Your task to perform on an android device: toggle javascript in the chrome app Image 0: 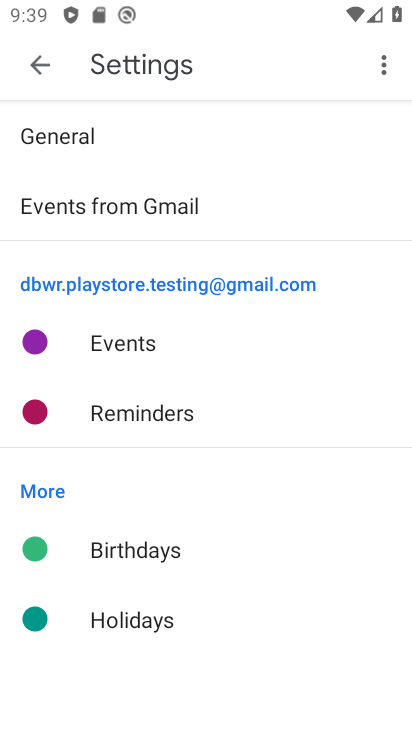
Step 0: press home button
Your task to perform on an android device: toggle javascript in the chrome app Image 1: 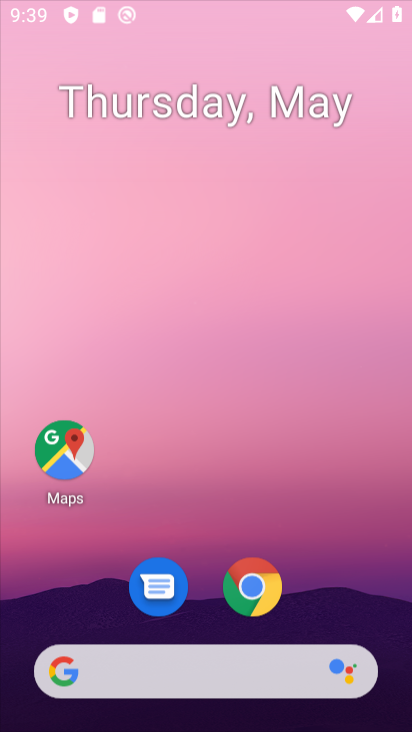
Step 1: drag from (389, 673) to (344, 112)
Your task to perform on an android device: toggle javascript in the chrome app Image 2: 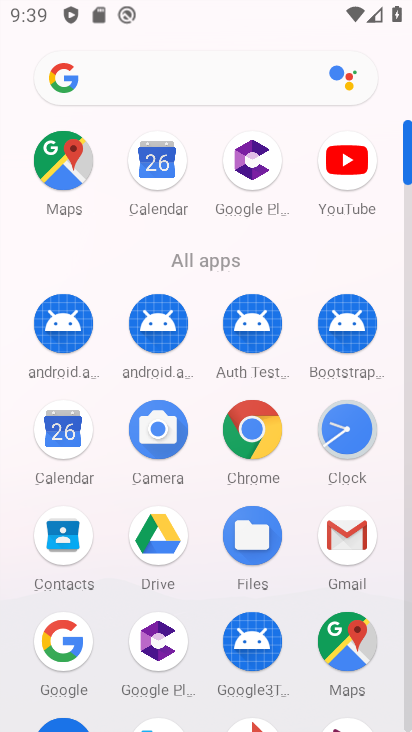
Step 2: click (244, 431)
Your task to perform on an android device: toggle javascript in the chrome app Image 3: 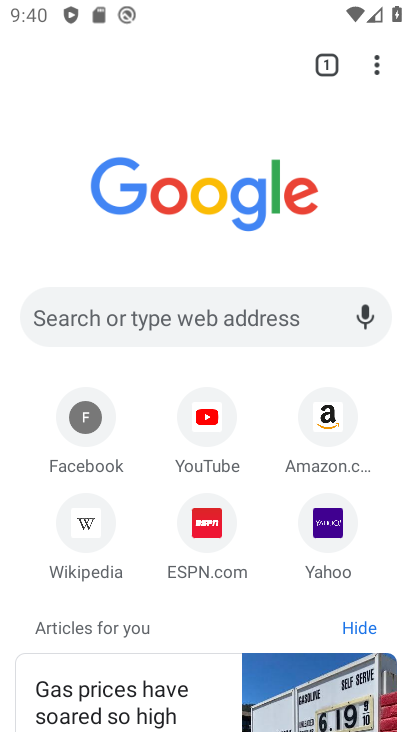
Step 3: click (384, 66)
Your task to perform on an android device: toggle javascript in the chrome app Image 4: 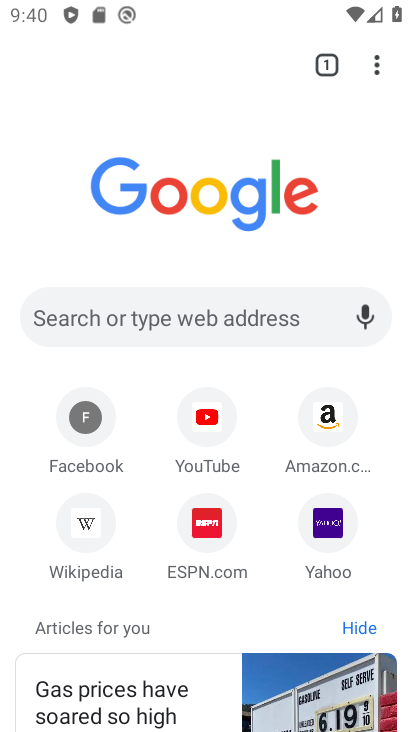
Step 4: click (368, 57)
Your task to perform on an android device: toggle javascript in the chrome app Image 5: 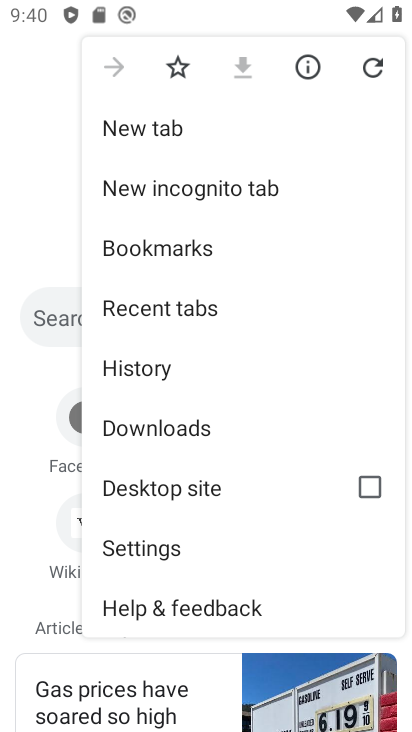
Step 5: click (193, 557)
Your task to perform on an android device: toggle javascript in the chrome app Image 6: 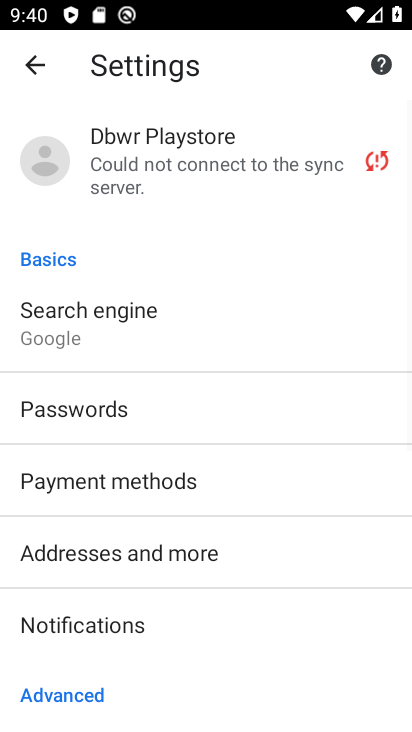
Step 6: drag from (121, 687) to (152, 194)
Your task to perform on an android device: toggle javascript in the chrome app Image 7: 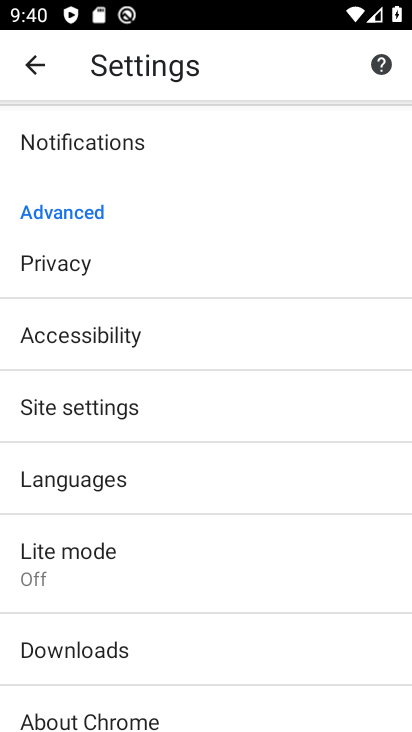
Step 7: click (132, 415)
Your task to perform on an android device: toggle javascript in the chrome app Image 8: 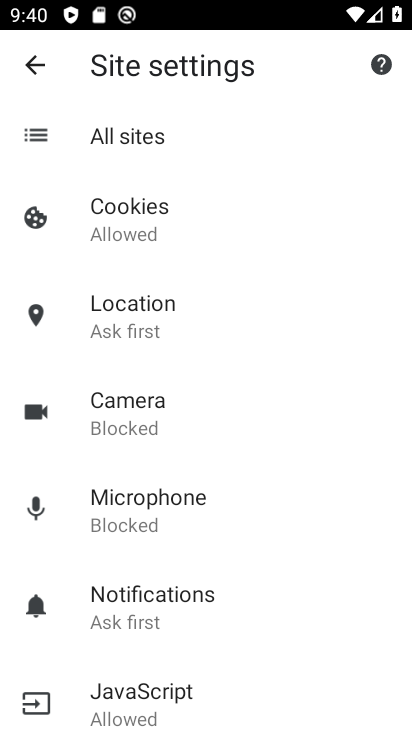
Step 8: click (145, 687)
Your task to perform on an android device: toggle javascript in the chrome app Image 9: 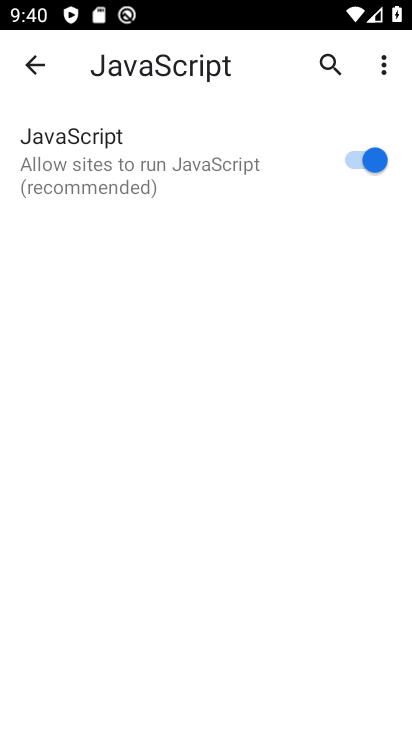
Step 9: click (362, 156)
Your task to perform on an android device: toggle javascript in the chrome app Image 10: 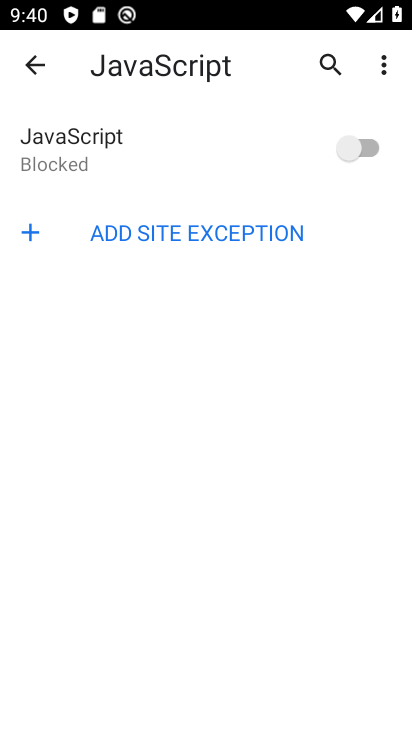
Step 10: task complete